Your task to perform on an android device: Open Google Chrome and click the shortcut for Amazon.com Image 0: 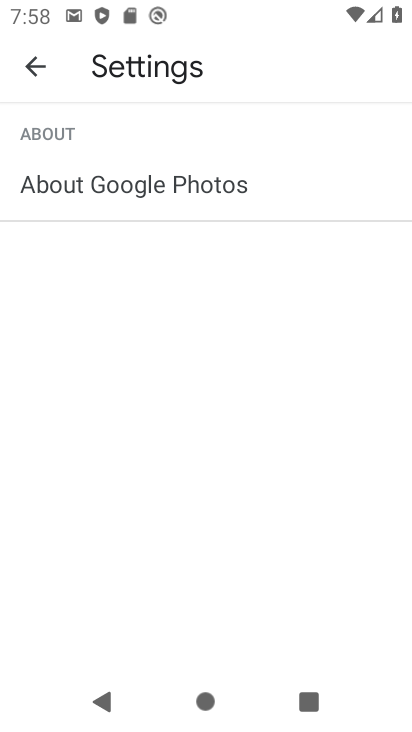
Step 0: press home button
Your task to perform on an android device: Open Google Chrome and click the shortcut for Amazon.com Image 1: 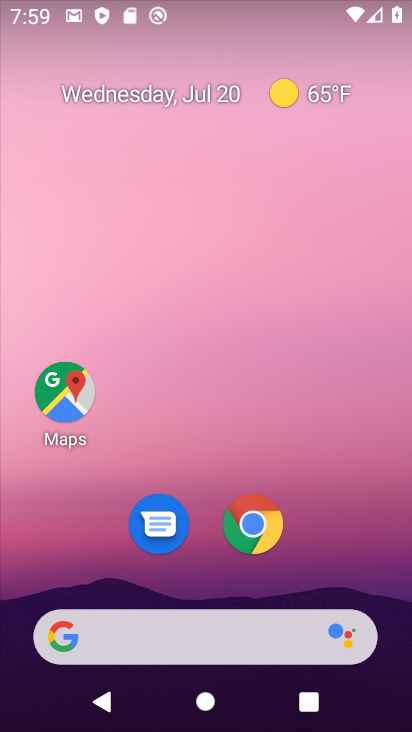
Step 1: click (256, 524)
Your task to perform on an android device: Open Google Chrome and click the shortcut for Amazon.com Image 2: 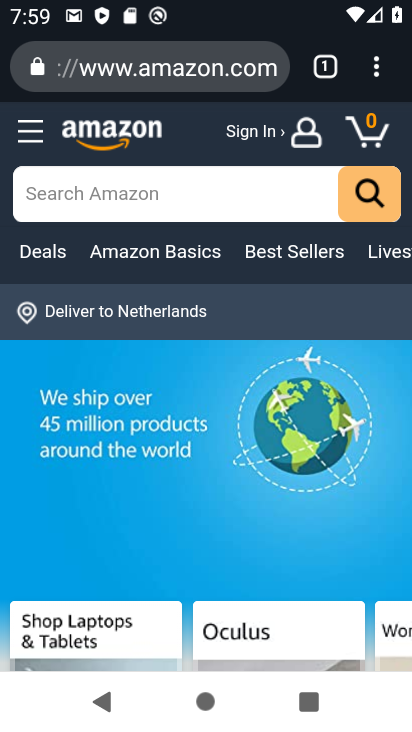
Step 2: click (378, 73)
Your task to perform on an android device: Open Google Chrome and click the shortcut for Amazon.com Image 3: 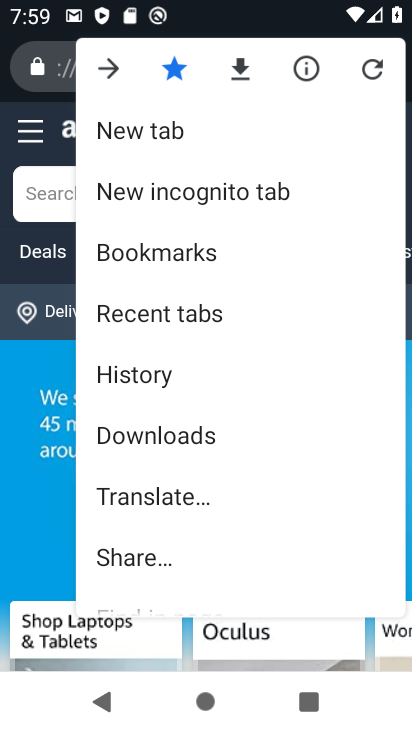
Step 3: click (269, 140)
Your task to perform on an android device: Open Google Chrome and click the shortcut for Amazon.com Image 4: 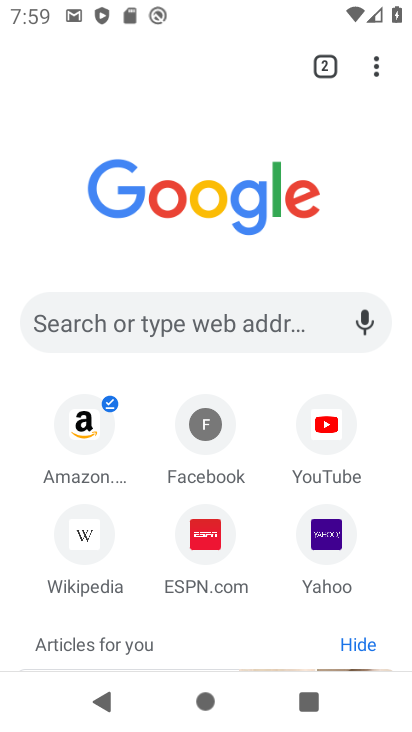
Step 4: click (91, 425)
Your task to perform on an android device: Open Google Chrome and click the shortcut for Amazon.com Image 5: 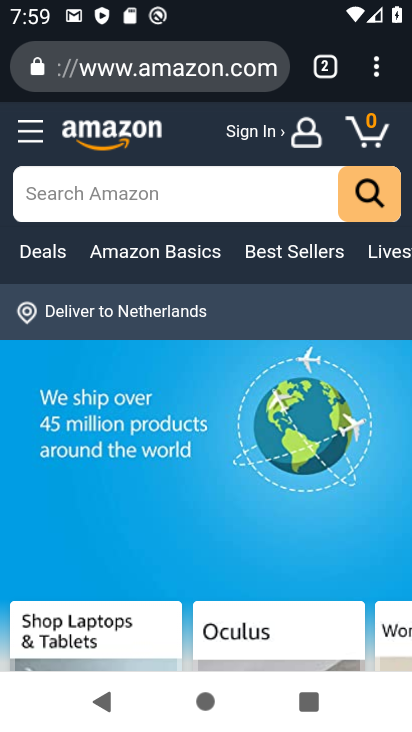
Step 5: task complete